Your task to perform on an android device: Go to Google Image 0: 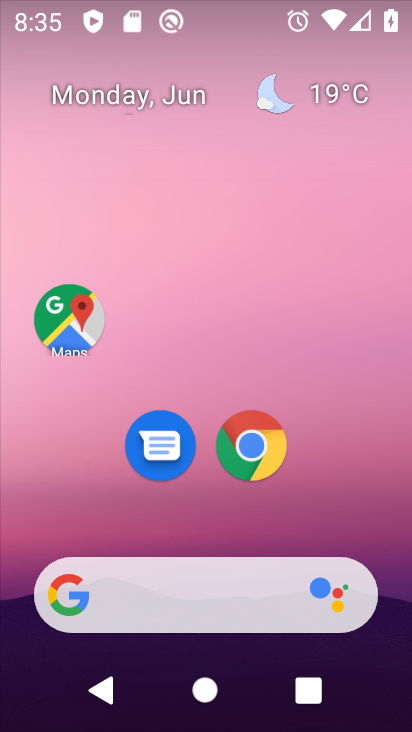
Step 0: drag from (126, 562) to (261, 86)
Your task to perform on an android device: Go to Google Image 1: 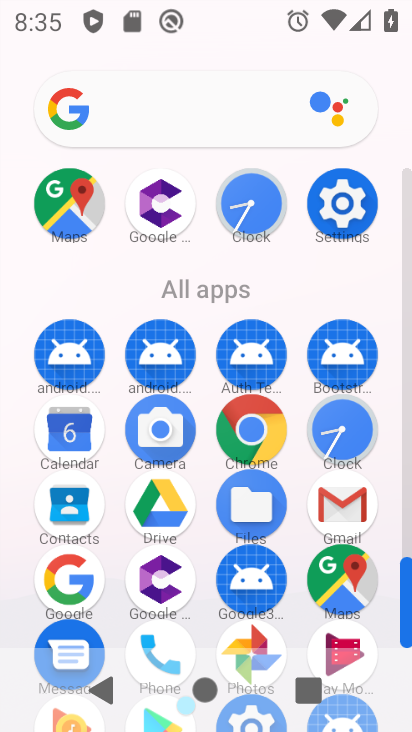
Step 1: click (65, 590)
Your task to perform on an android device: Go to Google Image 2: 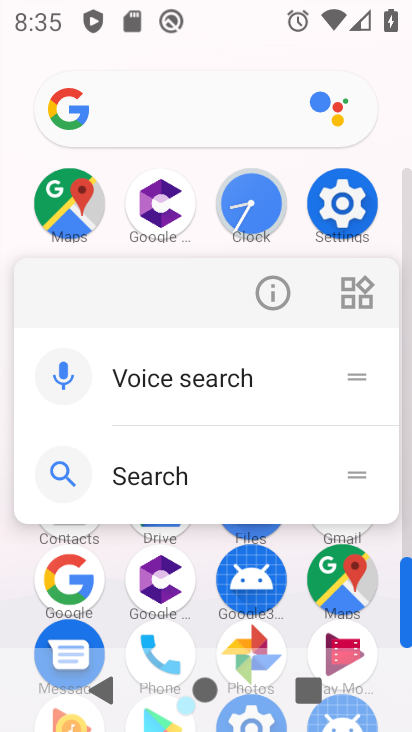
Step 2: click (67, 582)
Your task to perform on an android device: Go to Google Image 3: 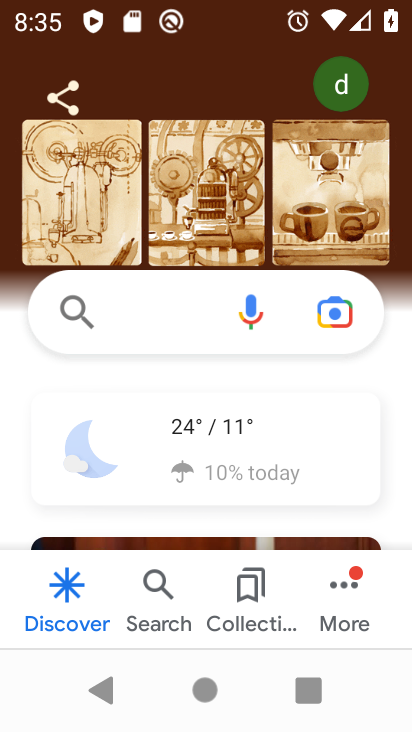
Step 3: task complete